Your task to perform on an android device: empty trash in the gmail app Image 0: 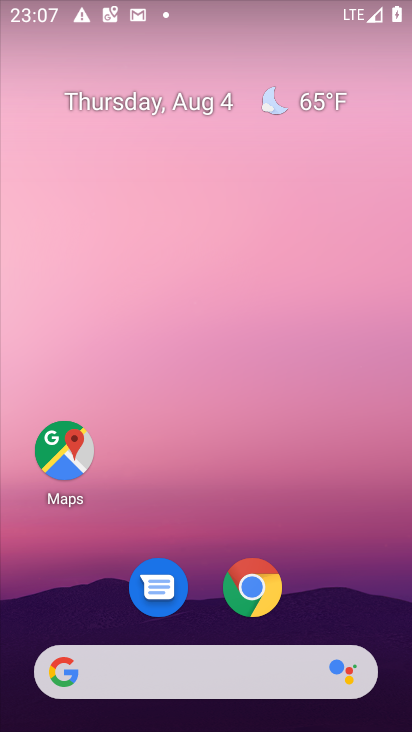
Step 0: drag from (208, 630) to (225, 241)
Your task to perform on an android device: empty trash in the gmail app Image 1: 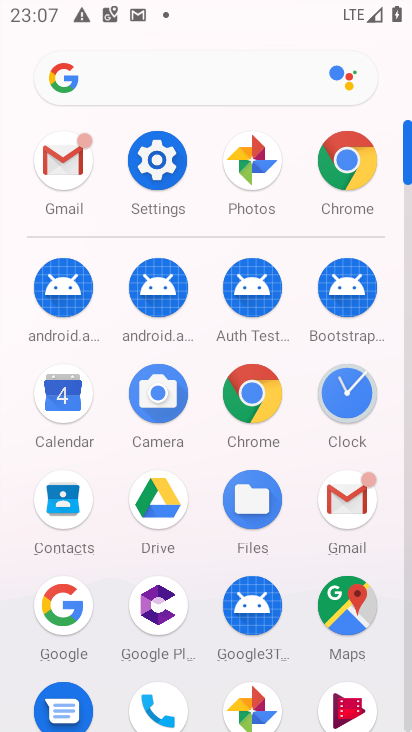
Step 1: click (335, 493)
Your task to perform on an android device: empty trash in the gmail app Image 2: 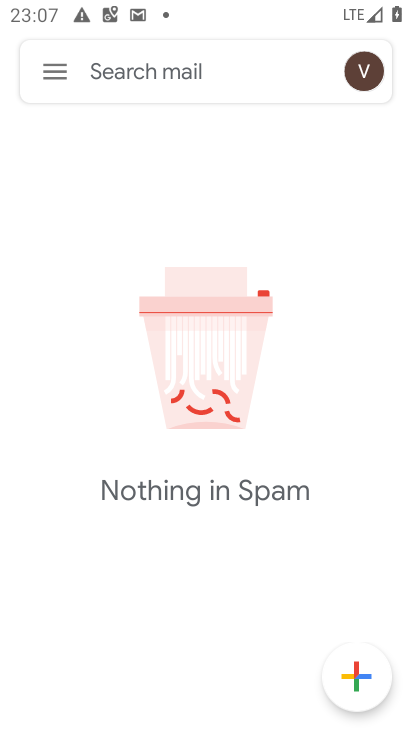
Step 2: click (35, 72)
Your task to perform on an android device: empty trash in the gmail app Image 3: 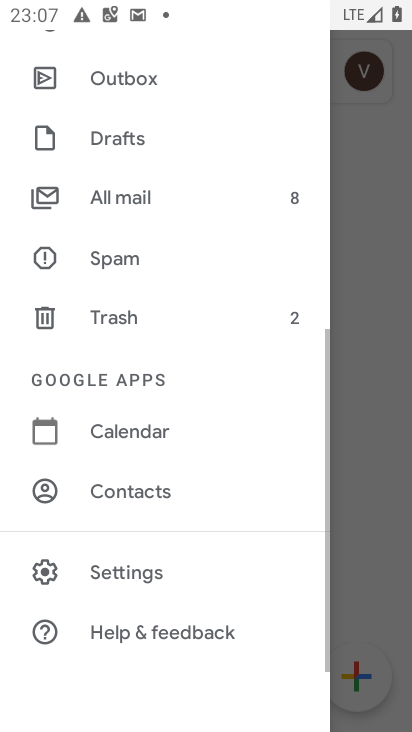
Step 3: click (135, 316)
Your task to perform on an android device: empty trash in the gmail app Image 4: 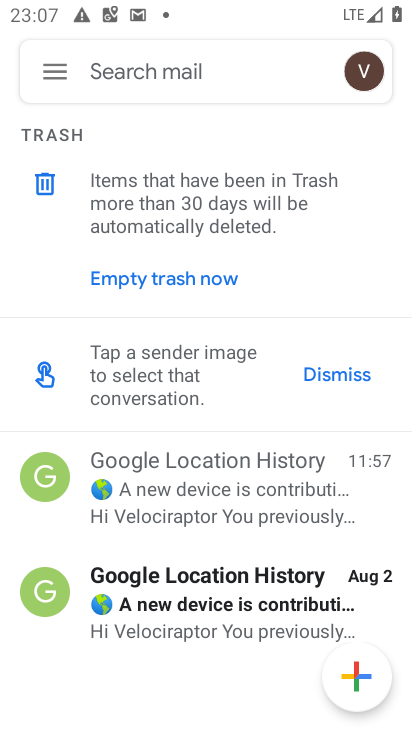
Step 4: click (156, 271)
Your task to perform on an android device: empty trash in the gmail app Image 5: 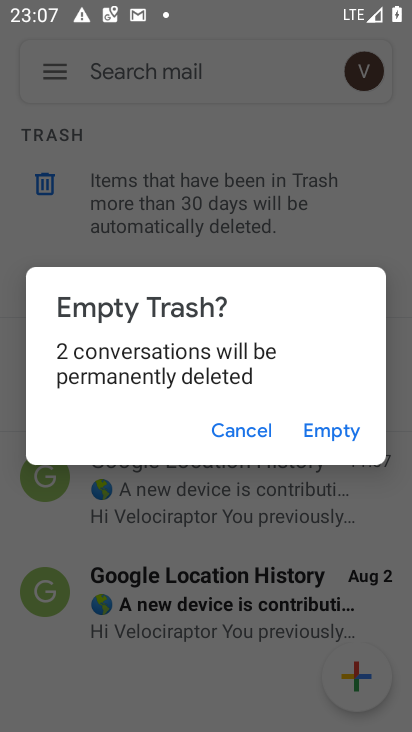
Step 5: click (331, 433)
Your task to perform on an android device: empty trash in the gmail app Image 6: 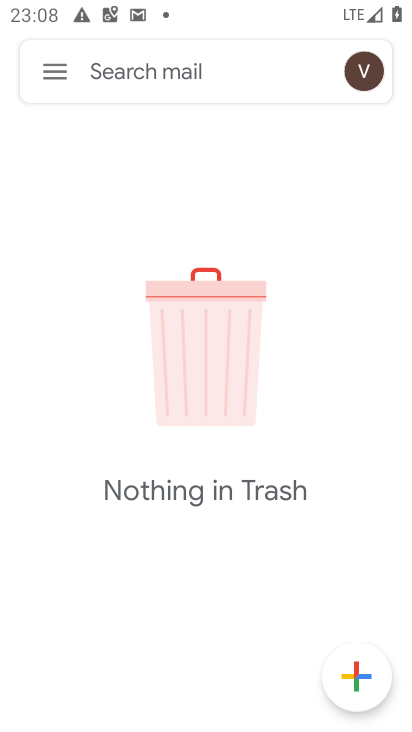
Step 6: task complete